Your task to perform on an android device: Open internet settings Image 0: 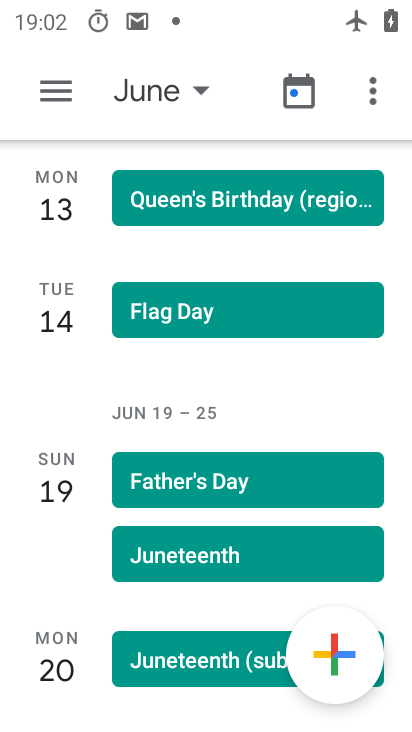
Step 0: press home button
Your task to perform on an android device: Open internet settings Image 1: 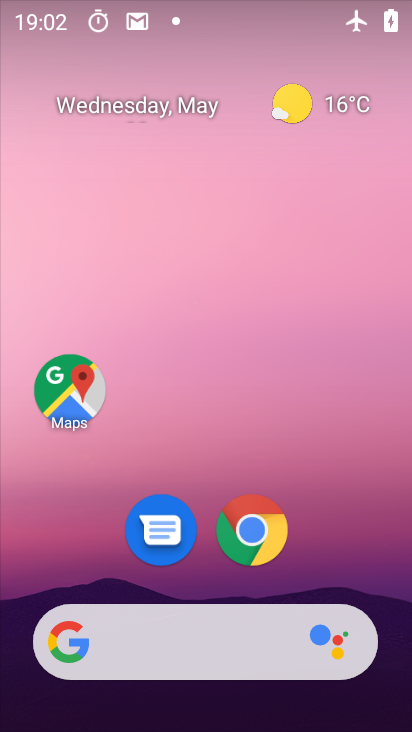
Step 1: drag from (333, 577) to (383, 162)
Your task to perform on an android device: Open internet settings Image 2: 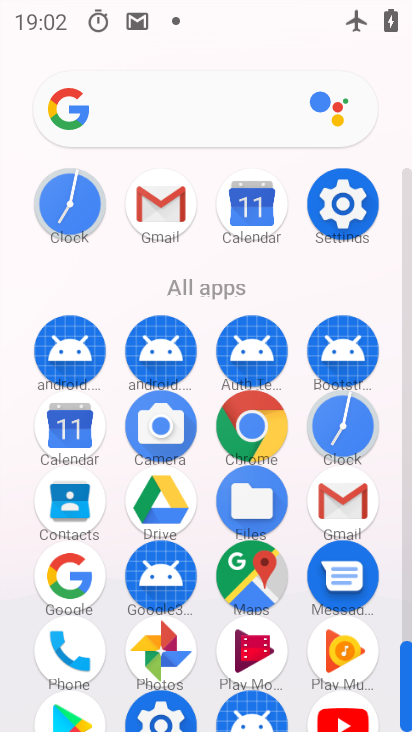
Step 2: click (341, 198)
Your task to perform on an android device: Open internet settings Image 3: 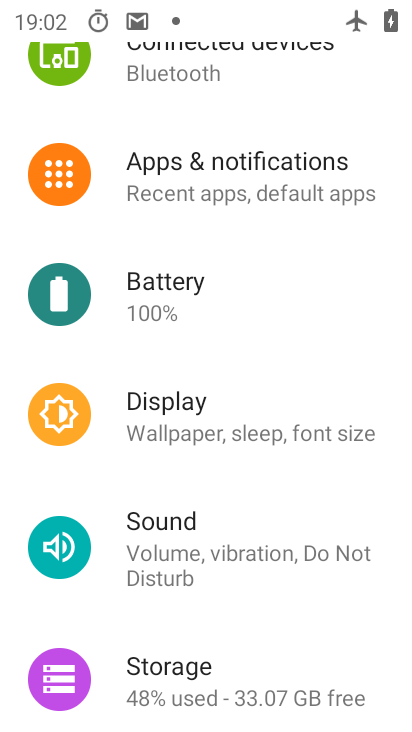
Step 3: drag from (256, 127) to (301, 374)
Your task to perform on an android device: Open internet settings Image 4: 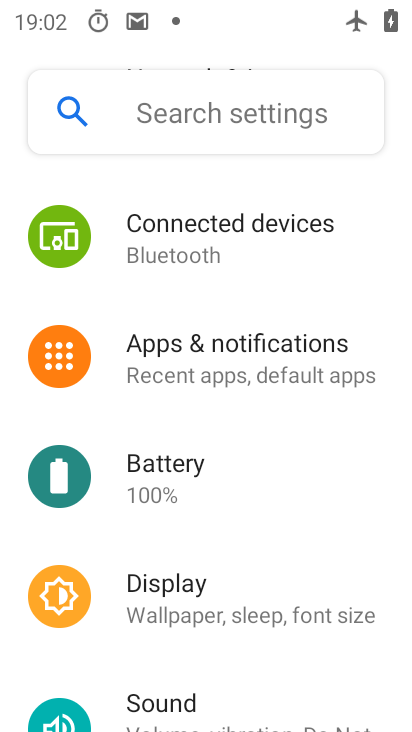
Step 4: drag from (223, 185) to (207, 603)
Your task to perform on an android device: Open internet settings Image 5: 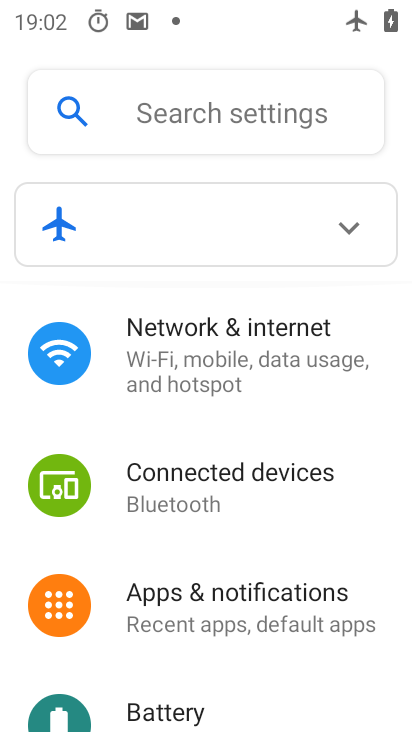
Step 5: click (186, 349)
Your task to perform on an android device: Open internet settings Image 6: 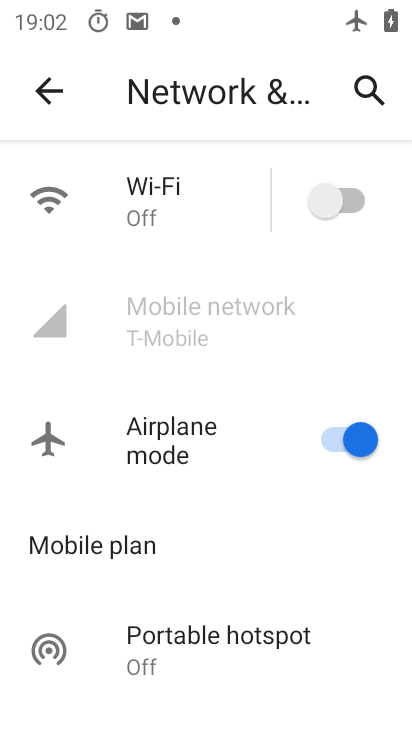
Step 6: task complete